Your task to perform on an android device: add a contact in the contacts app Image 0: 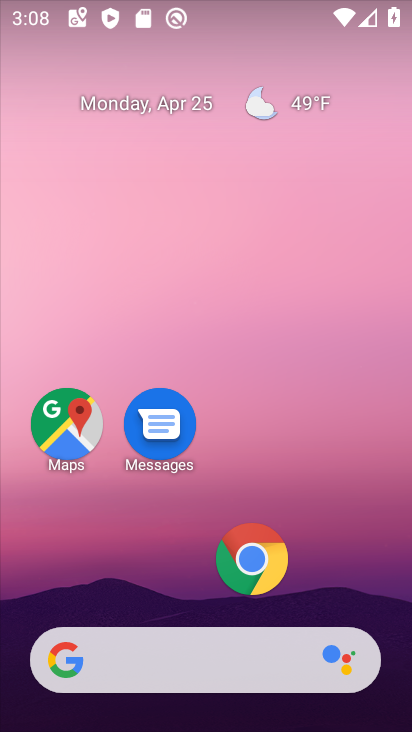
Step 0: drag from (172, 537) to (215, 80)
Your task to perform on an android device: add a contact in the contacts app Image 1: 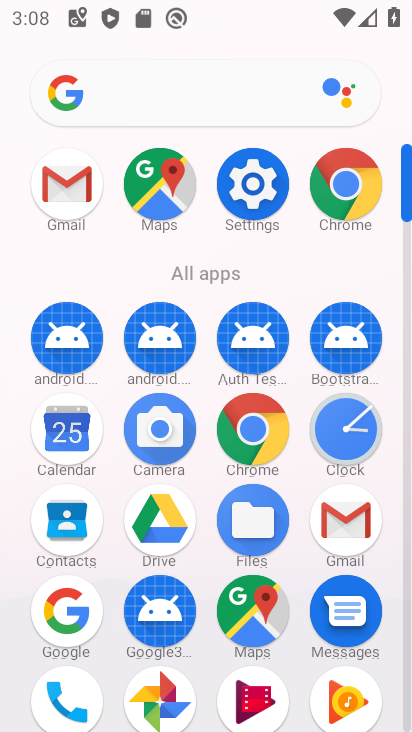
Step 1: drag from (202, 621) to (203, 410)
Your task to perform on an android device: add a contact in the contacts app Image 2: 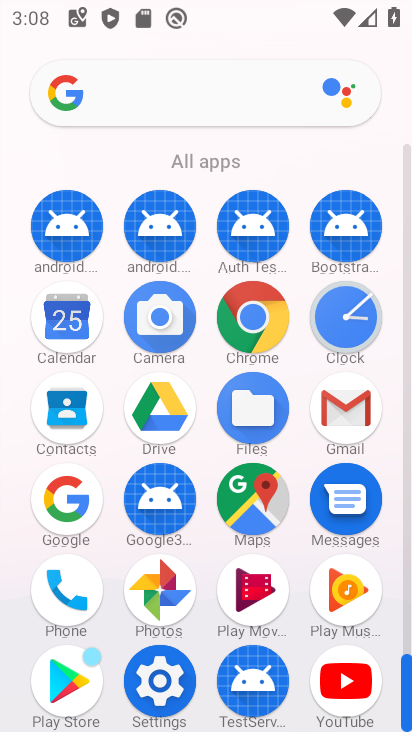
Step 2: click (69, 403)
Your task to perform on an android device: add a contact in the contacts app Image 3: 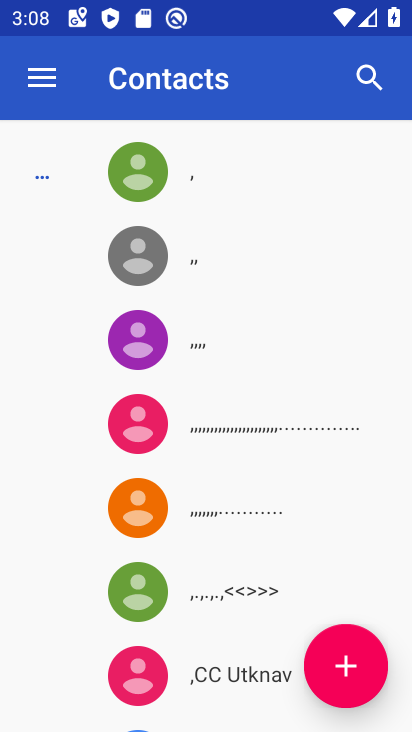
Step 3: click (342, 665)
Your task to perform on an android device: add a contact in the contacts app Image 4: 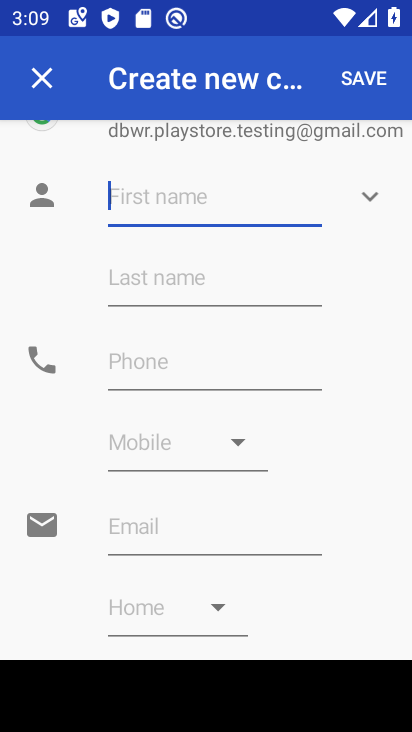
Step 4: type "op"
Your task to perform on an android device: add a contact in the contacts app Image 5: 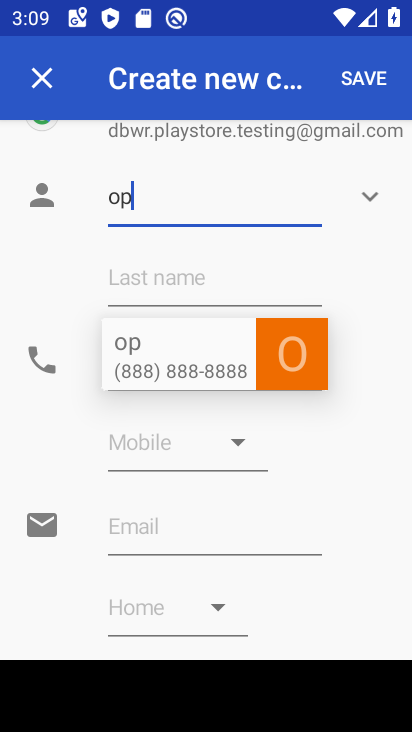
Step 5: type "k"
Your task to perform on an android device: add a contact in the contacts app Image 6: 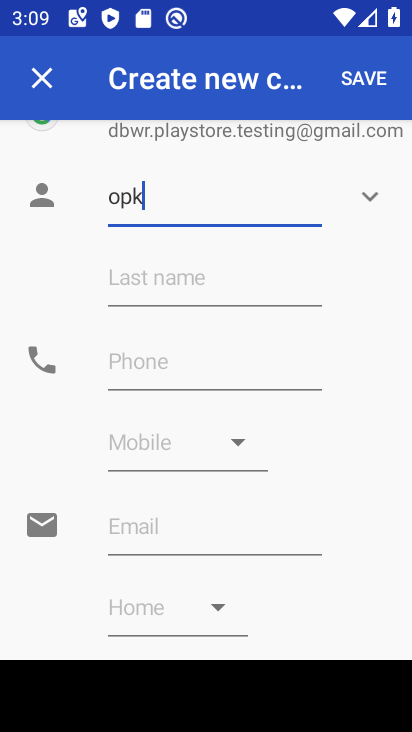
Step 6: click (189, 377)
Your task to perform on an android device: add a contact in the contacts app Image 7: 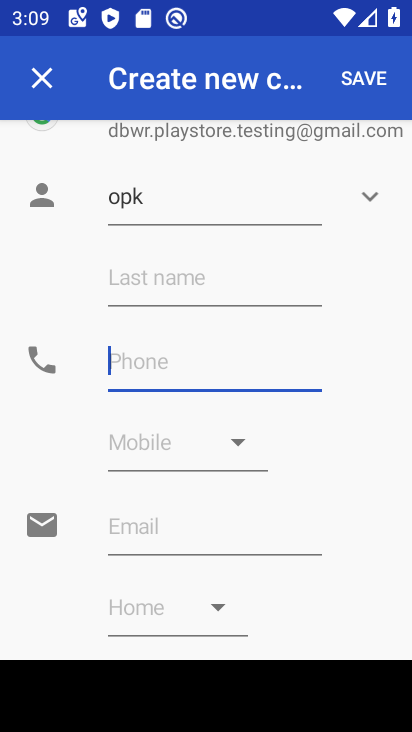
Step 7: type "123456789"
Your task to perform on an android device: add a contact in the contacts app Image 8: 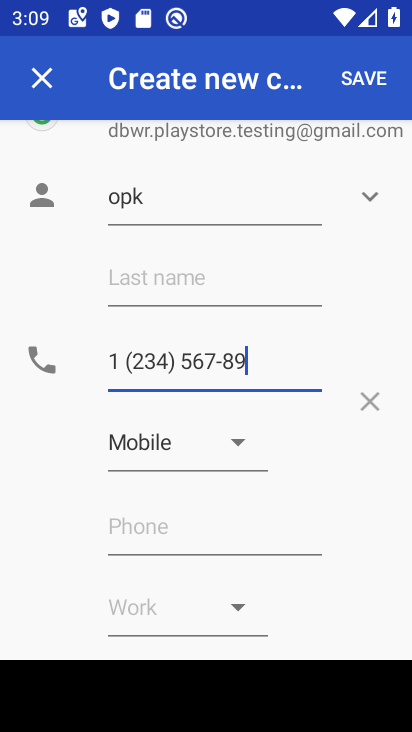
Step 8: click (375, 75)
Your task to perform on an android device: add a contact in the contacts app Image 9: 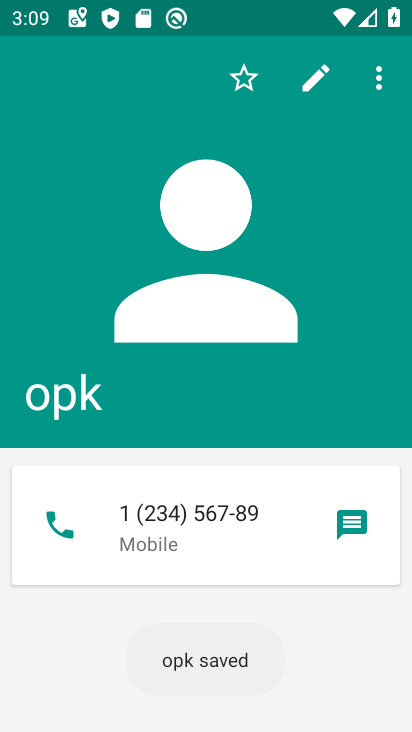
Step 9: task complete